Your task to perform on an android device: Open Google Chrome Image 0: 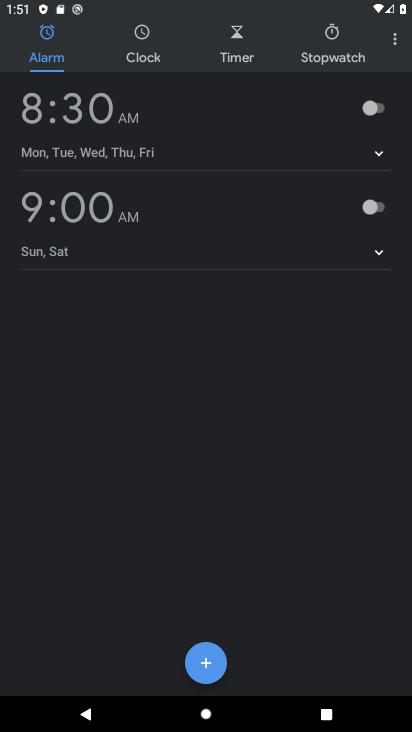
Step 0: press home button
Your task to perform on an android device: Open Google Chrome Image 1: 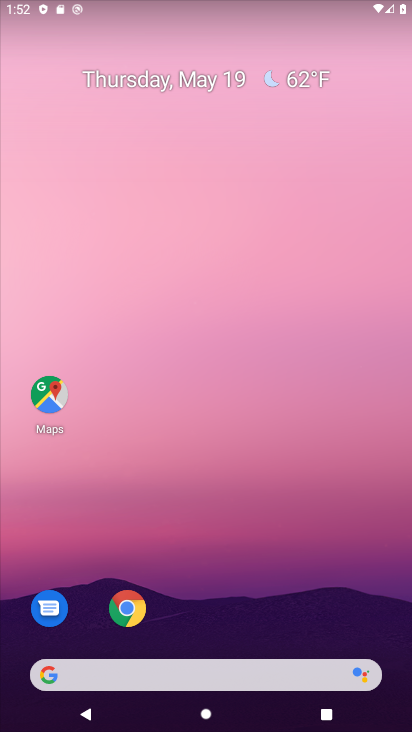
Step 1: click (147, 605)
Your task to perform on an android device: Open Google Chrome Image 2: 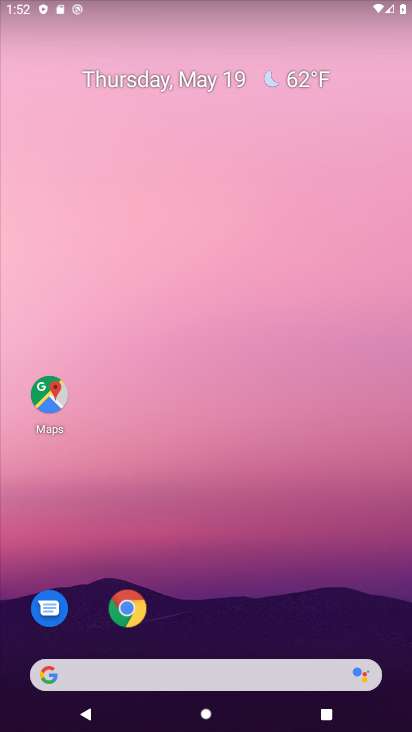
Step 2: task complete